Your task to perform on an android device: Open the phone app and click the voicemail tab. Image 0: 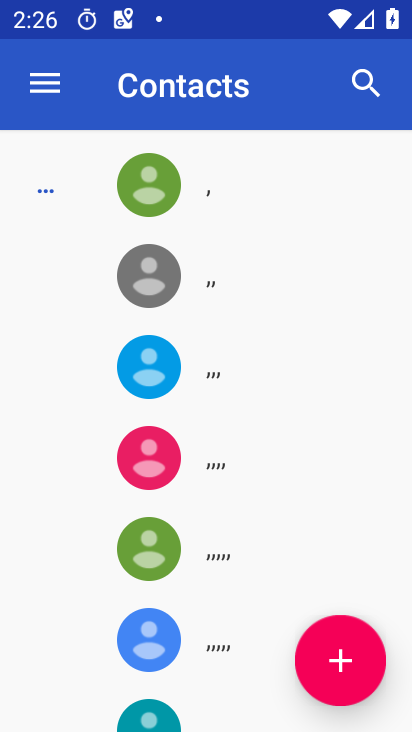
Step 0: press home button
Your task to perform on an android device: Open the phone app and click the voicemail tab. Image 1: 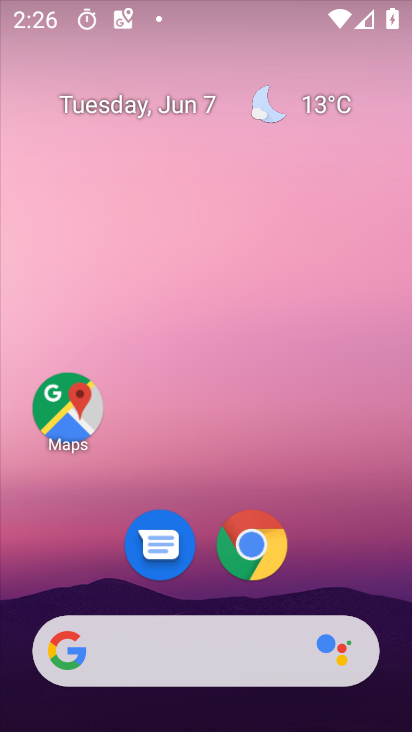
Step 1: drag from (380, 606) to (118, 5)
Your task to perform on an android device: Open the phone app and click the voicemail tab. Image 2: 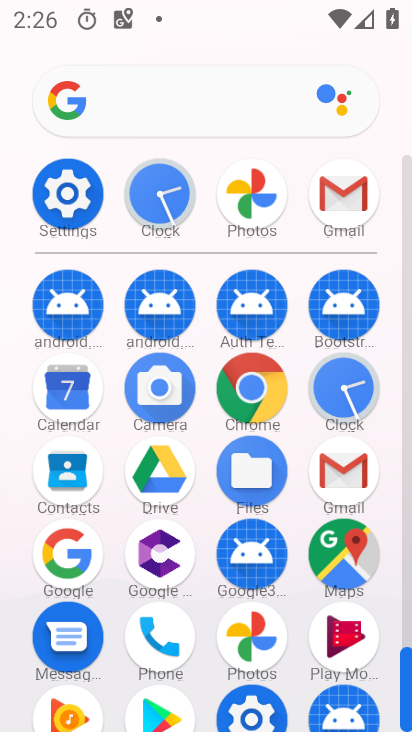
Step 2: click (156, 612)
Your task to perform on an android device: Open the phone app and click the voicemail tab. Image 3: 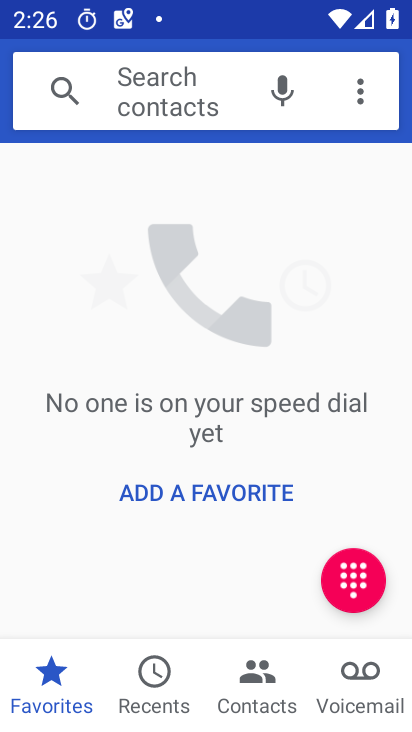
Step 3: click (355, 685)
Your task to perform on an android device: Open the phone app and click the voicemail tab. Image 4: 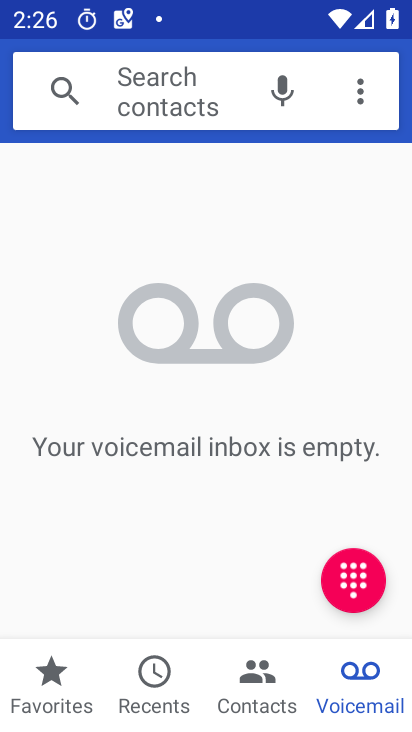
Step 4: task complete